Your task to perform on an android device: Go to display settings Image 0: 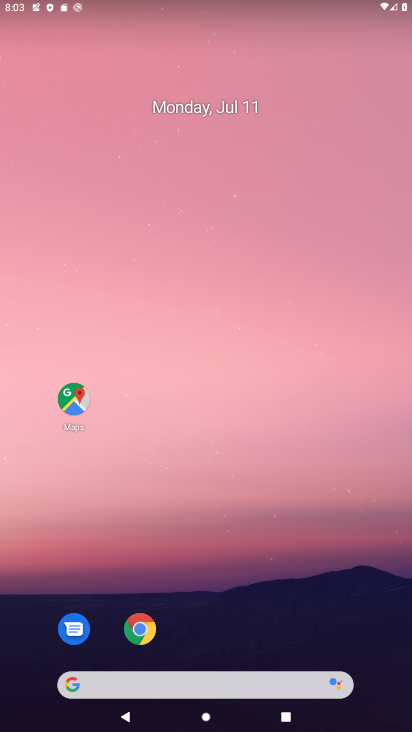
Step 0: drag from (194, 534) to (233, 160)
Your task to perform on an android device: Go to display settings Image 1: 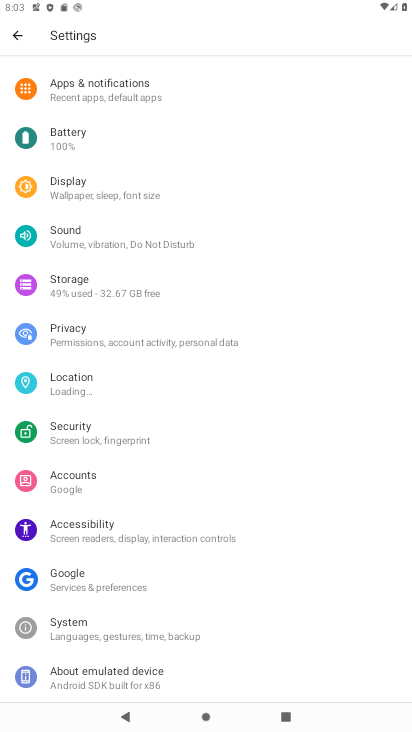
Step 1: click (101, 184)
Your task to perform on an android device: Go to display settings Image 2: 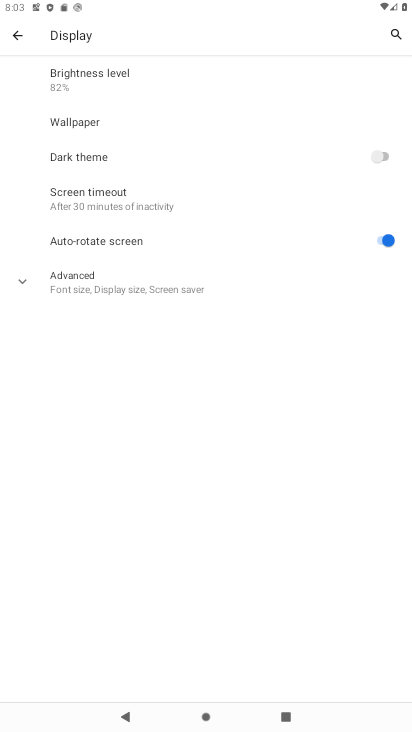
Step 2: task complete